Your task to perform on an android device: toggle translation in the chrome app Image 0: 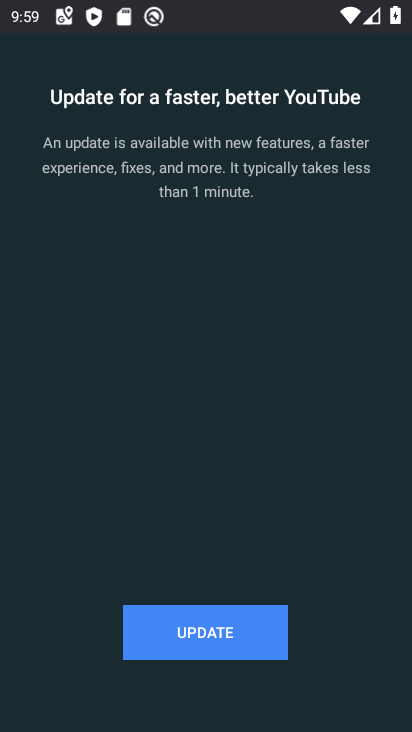
Step 0: press home button
Your task to perform on an android device: toggle translation in the chrome app Image 1: 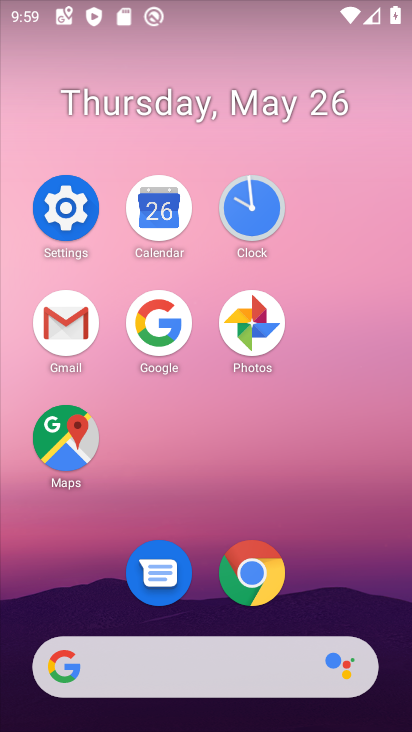
Step 1: click (262, 595)
Your task to perform on an android device: toggle translation in the chrome app Image 2: 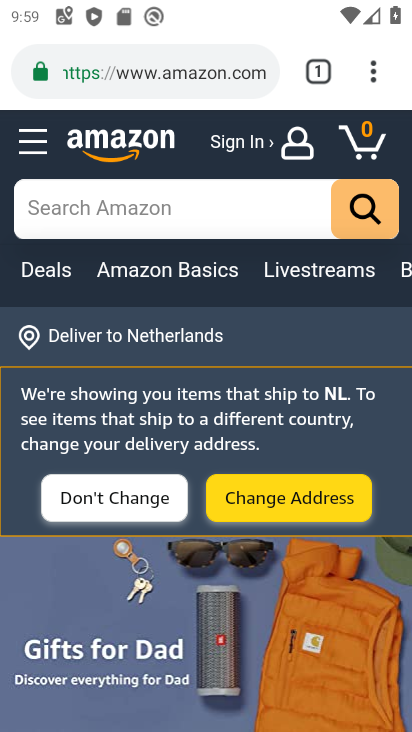
Step 2: click (364, 96)
Your task to perform on an android device: toggle translation in the chrome app Image 3: 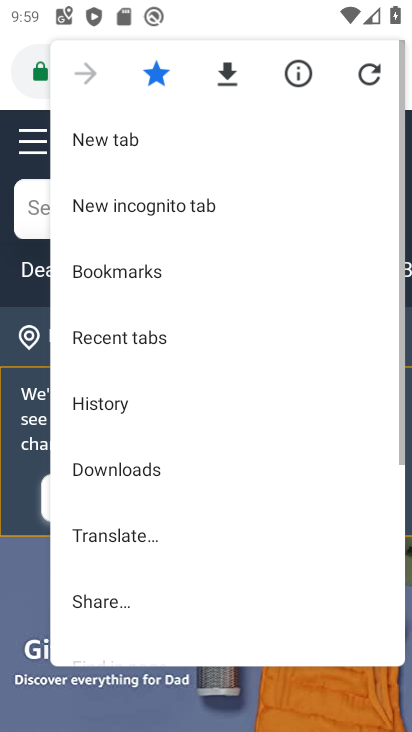
Step 3: drag from (200, 529) to (155, 180)
Your task to perform on an android device: toggle translation in the chrome app Image 4: 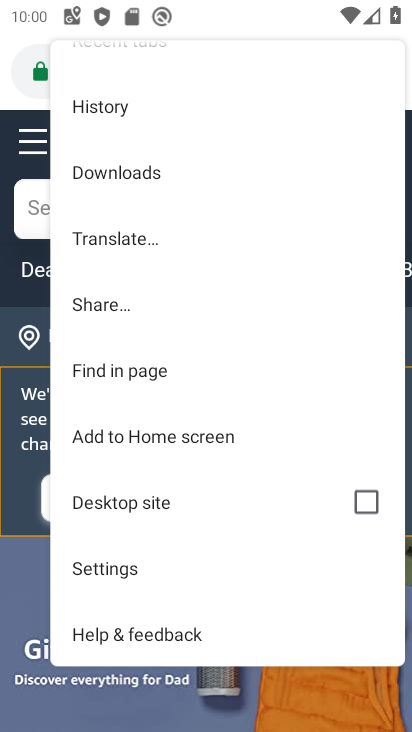
Step 4: click (190, 551)
Your task to perform on an android device: toggle translation in the chrome app Image 5: 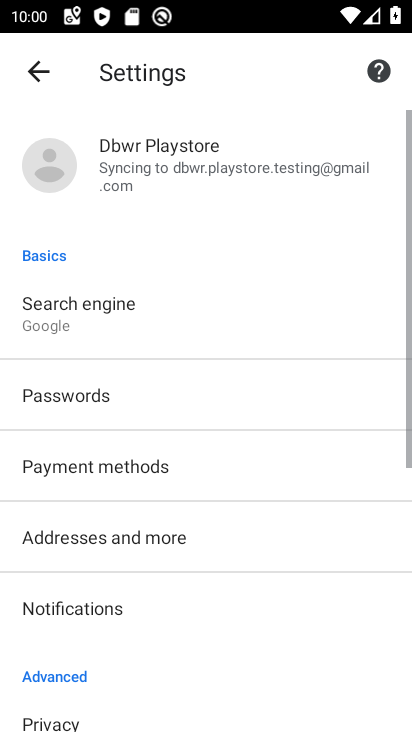
Step 5: drag from (189, 549) to (124, 165)
Your task to perform on an android device: toggle translation in the chrome app Image 6: 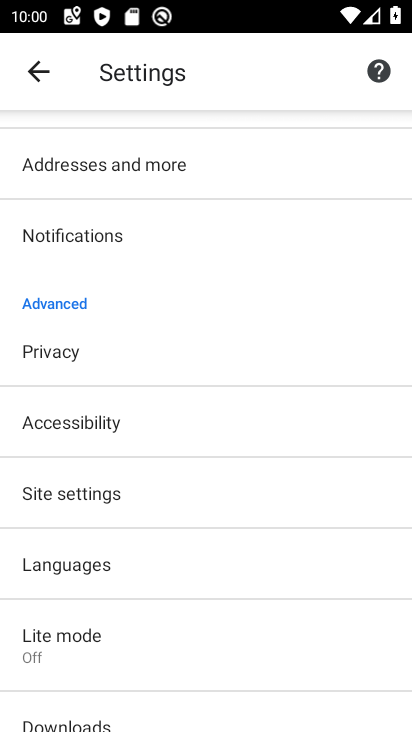
Step 6: click (131, 568)
Your task to perform on an android device: toggle translation in the chrome app Image 7: 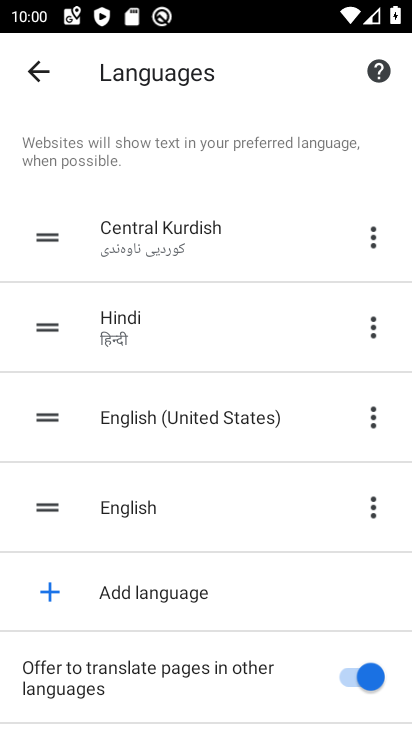
Step 7: click (346, 677)
Your task to perform on an android device: toggle translation in the chrome app Image 8: 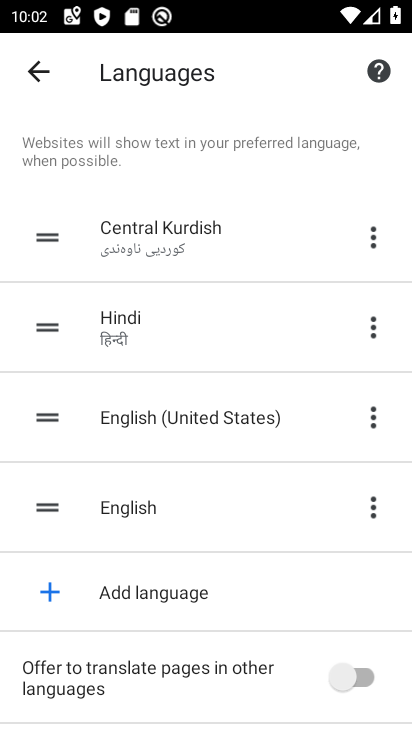
Step 8: task complete